Your task to perform on an android device: change the upload size in google photos Image 0: 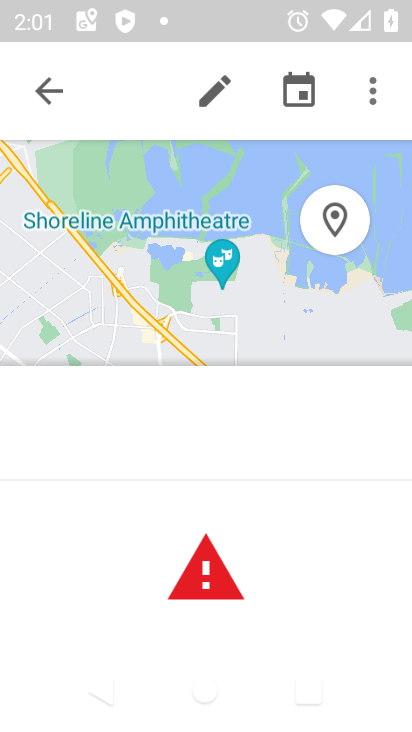
Step 0: press home button
Your task to perform on an android device: change the upload size in google photos Image 1: 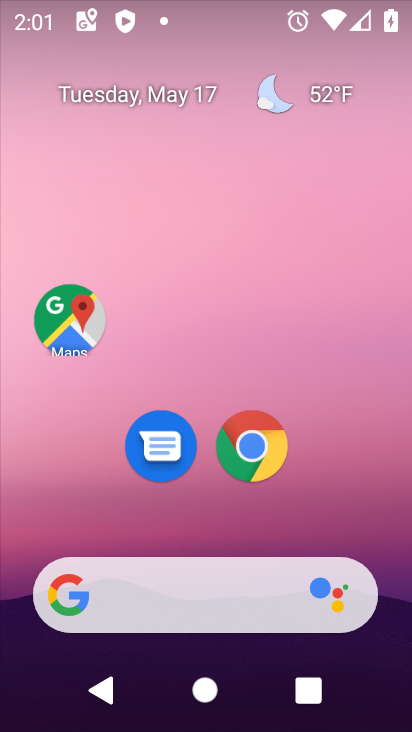
Step 1: drag from (149, 527) to (217, 159)
Your task to perform on an android device: change the upload size in google photos Image 2: 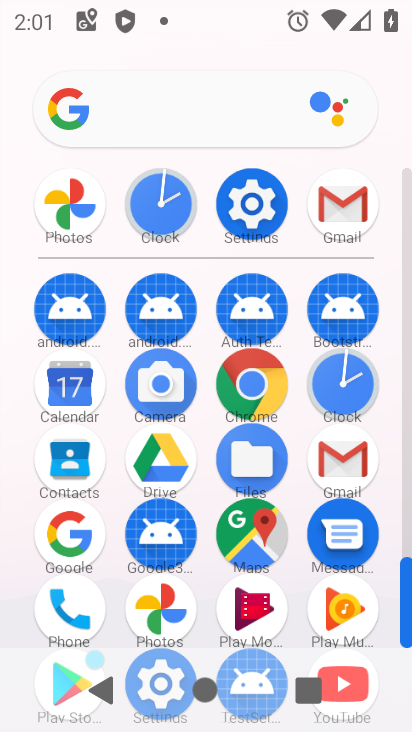
Step 2: click (70, 196)
Your task to perform on an android device: change the upload size in google photos Image 3: 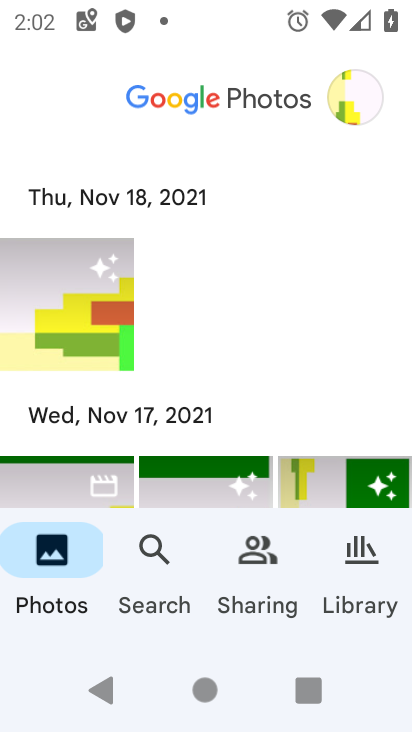
Step 3: click (349, 111)
Your task to perform on an android device: change the upload size in google photos Image 4: 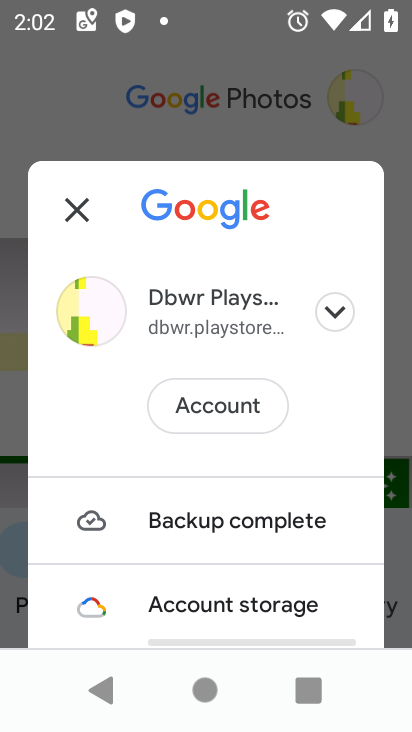
Step 4: drag from (309, 455) to (322, 253)
Your task to perform on an android device: change the upload size in google photos Image 5: 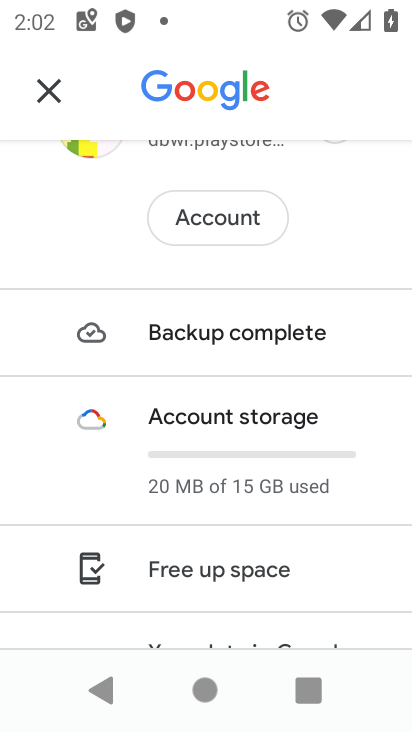
Step 5: drag from (221, 487) to (333, 144)
Your task to perform on an android device: change the upload size in google photos Image 6: 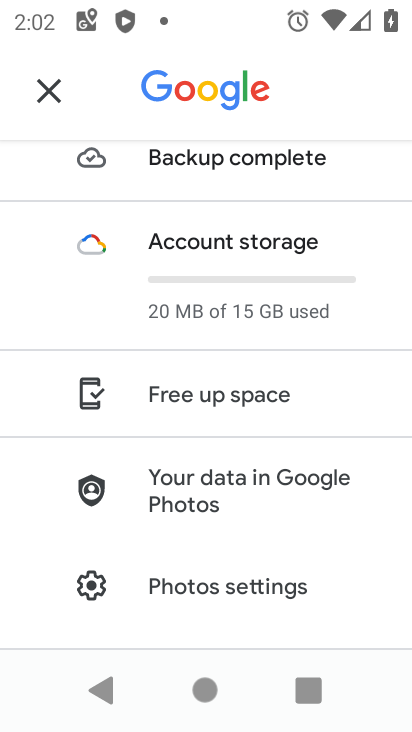
Step 6: drag from (218, 612) to (274, 381)
Your task to perform on an android device: change the upload size in google photos Image 7: 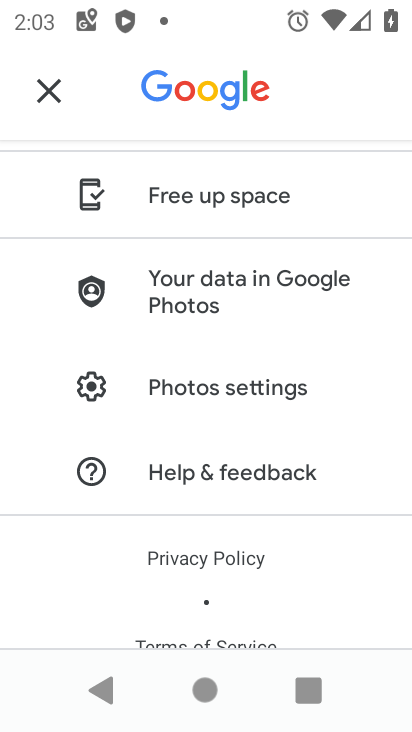
Step 7: drag from (276, 526) to (306, 202)
Your task to perform on an android device: change the upload size in google photos Image 8: 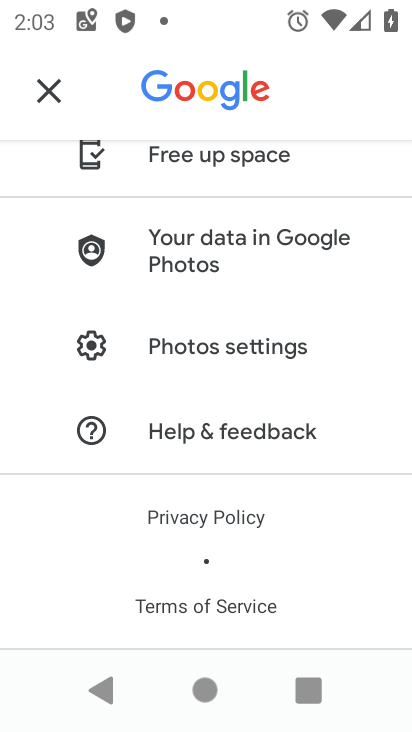
Step 8: click (206, 335)
Your task to perform on an android device: change the upload size in google photos Image 9: 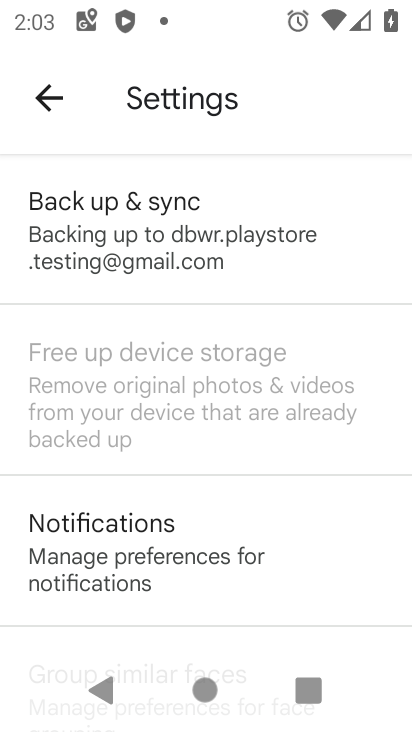
Step 9: click (241, 239)
Your task to perform on an android device: change the upload size in google photos Image 10: 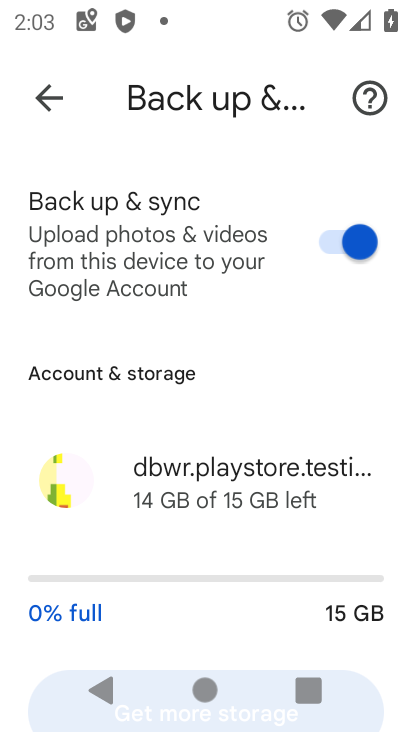
Step 10: drag from (210, 507) to (305, 215)
Your task to perform on an android device: change the upload size in google photos Image 11: 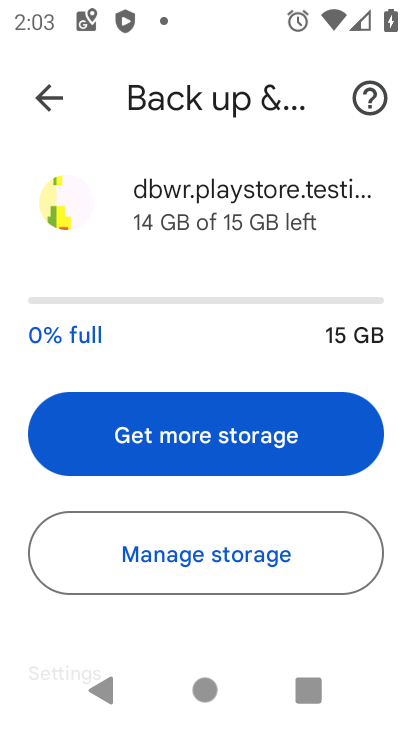
Step 11: drag from (255, 336) to (324, 113)
Your task to perform on an android device: change the upload size in google photos Image 12: 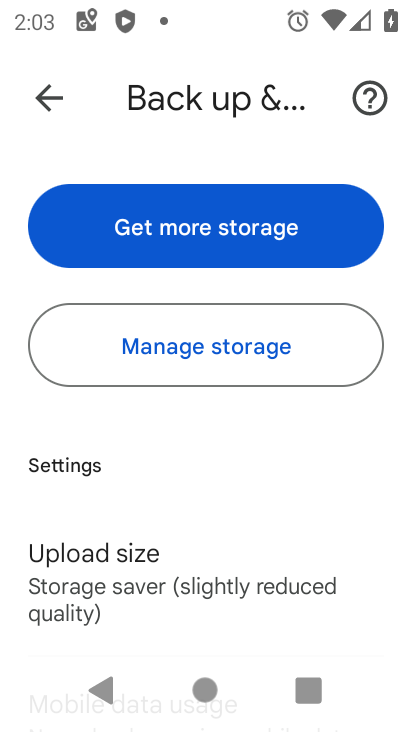
Step 12: drag from (169, 577) to (241, 367)
Your task to perform on an android device: change the upload size in google photos Image 13: 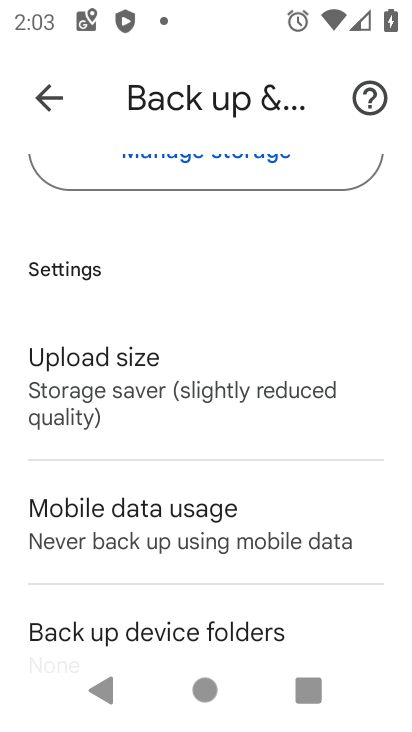
Step 13: click (117, 458)
Your task to perform on an android device: change the upload size in google photos Image 14: 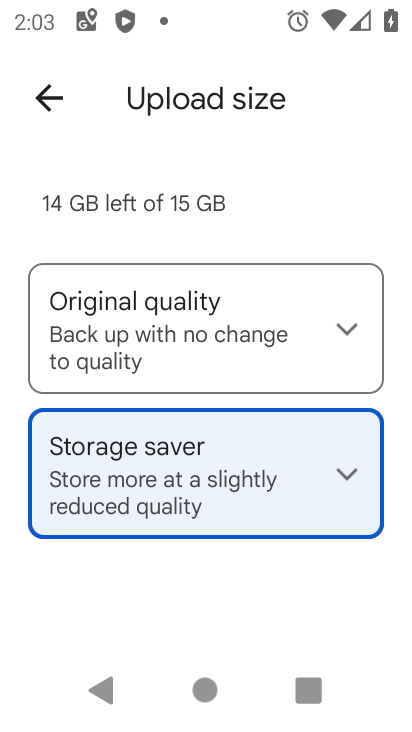
Step 14: click (209, 339)
Your task to perform on an android device: change the upload size in google photos Image 15: 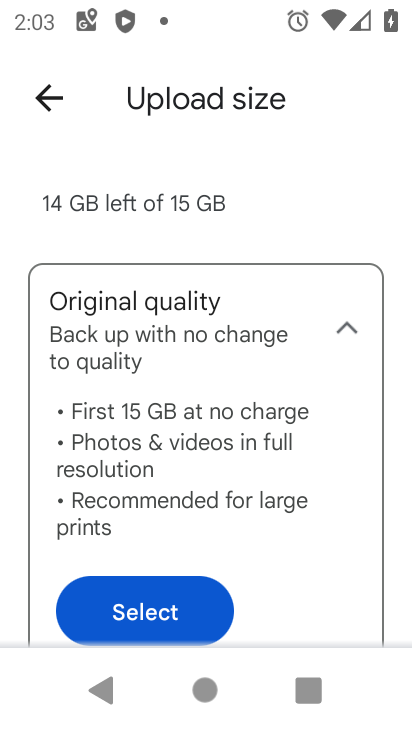
Step 15: task complete